Your task to perform on an android device: Go to Amazon Image 0: 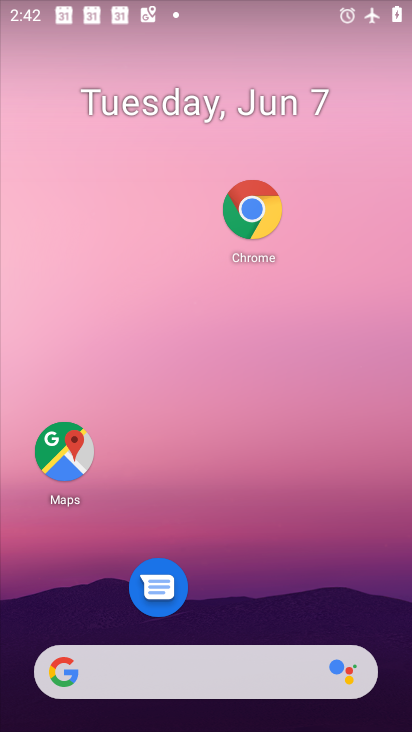
Step 0: click (262, 229)
Your task to perform on an android device: Go to Amazon Image 1: 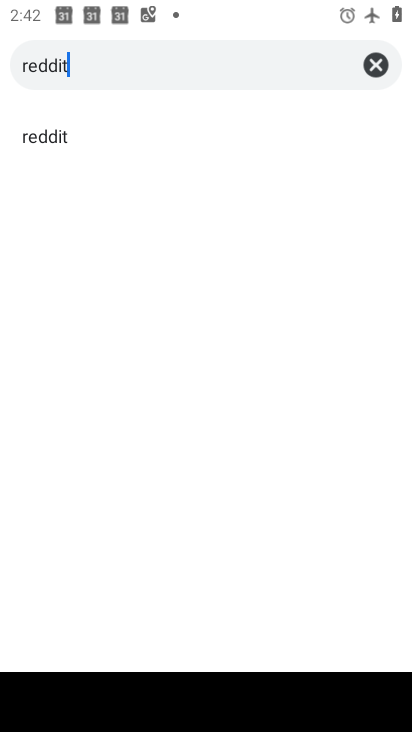
Step 1: click (379, 63)
Your task to perform on an android device: Go to Amazon Image 2: 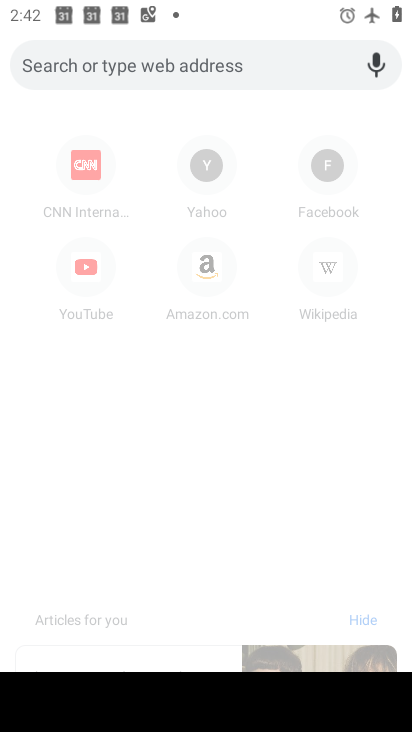
Step 2: click (170, 414)
Your task to perform on an android device: Go to Amazon Image 3: 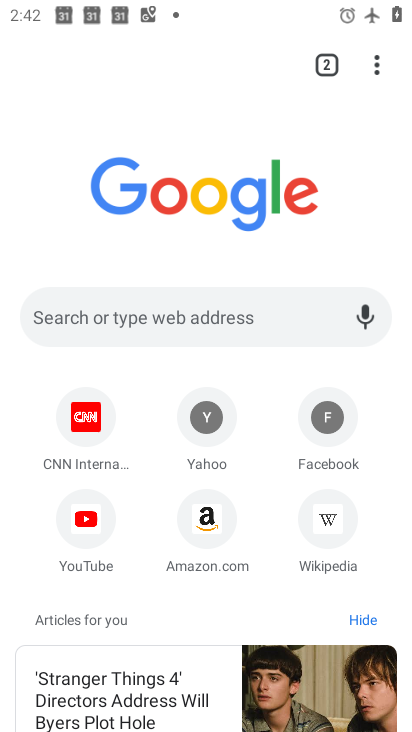
Step 3: click (220, 536)
Your task to perform on an android device: Go to Amazon Image 4: 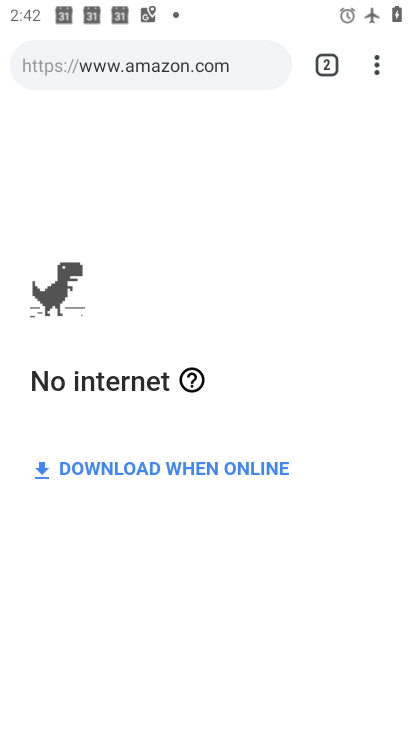
Step 4: task complete